Your task to perform on an android device: turn on wifi Image 0: 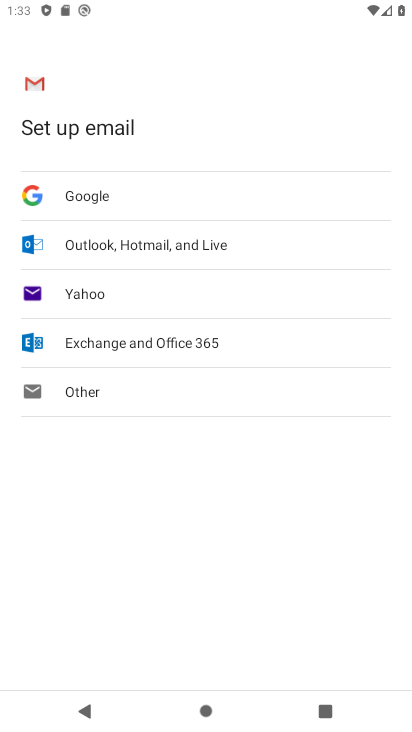
Step 0: press home button
Your task to perform on an android device: turn on wifi Image 1: 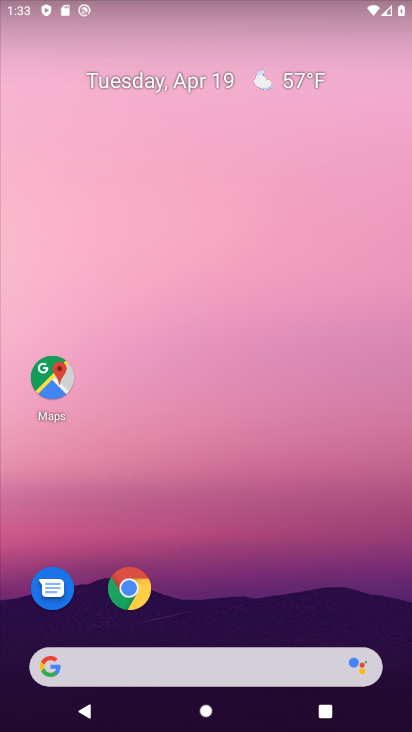
Step 1: drag from (337, 481) to (365, 75)
Your task to perform on an android device: turn on wifi Image 2: 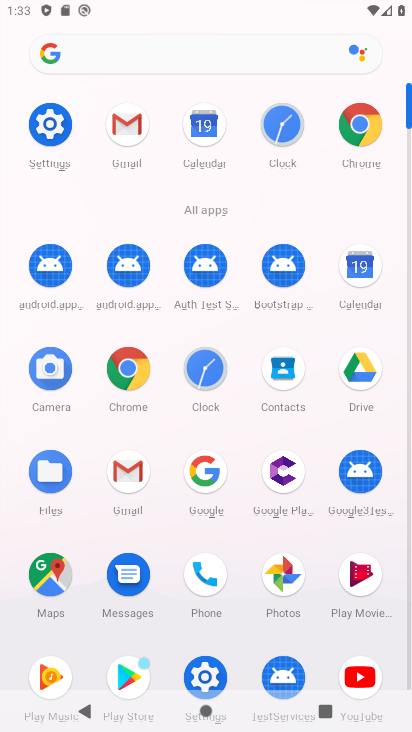
Step 2: click (50, 127)
Your task to perform on an android device: turn on wifi Image 3: 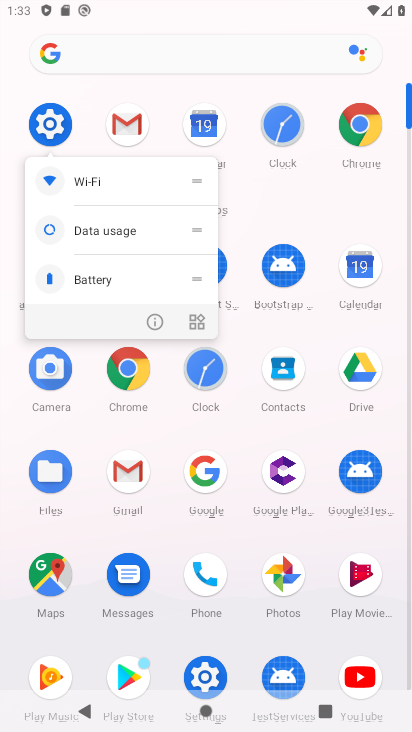
Step 3: click (53, 113)
Your task to perform on an android device: turn on wifi Image 4: 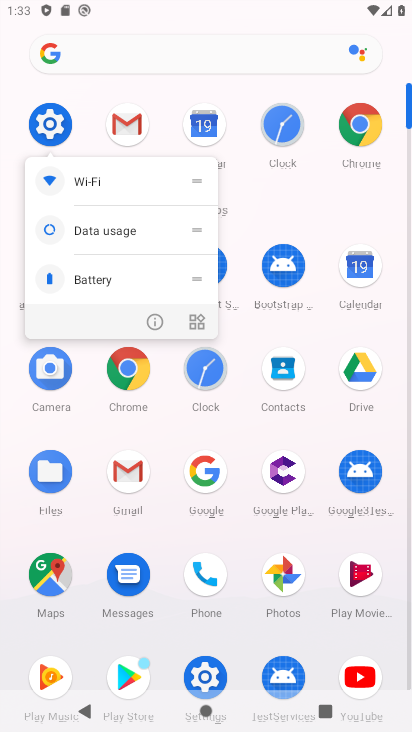
Step 4: click (41, 116)
Your task to perform on an android device: turn on wifi Image 5: 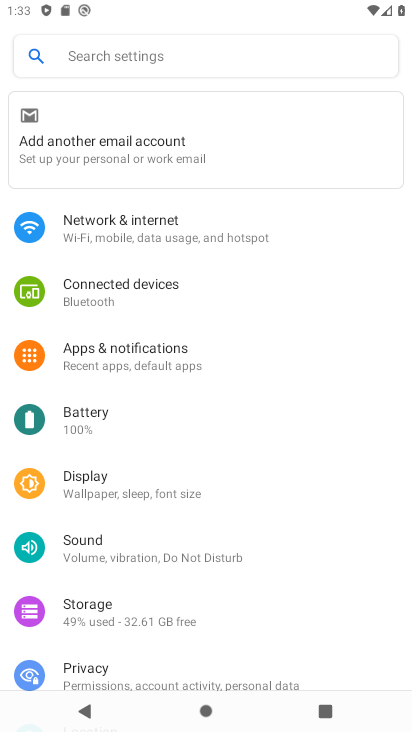
Step 5: click (115, 222)
Your task to perform on an android device: turn on wifi Image 6: 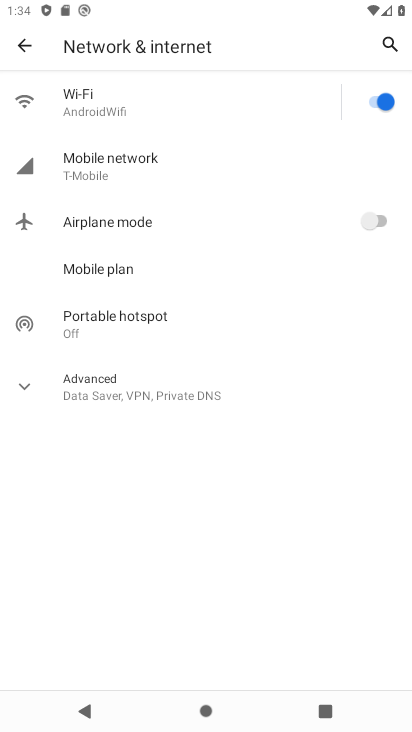
Step 6: task complete